Your task to perform on an android device: Open the phone app and click the voicemail tab. Image 0: 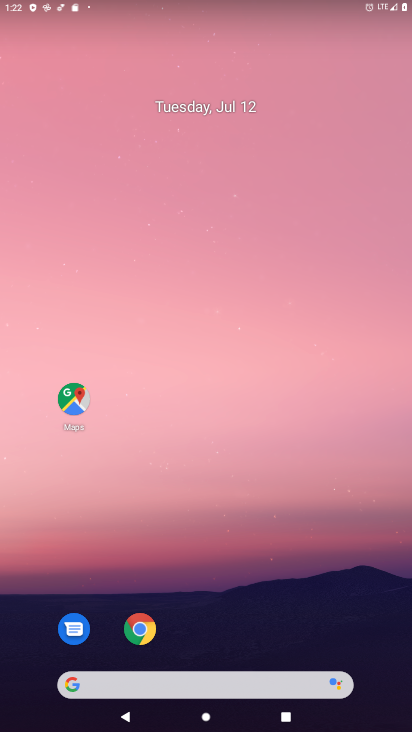
Step 0: drag from (276, 671) to (290, 0)
Your task to perform on an android device: Open the phone app and click the voicemail tab. Image 1: 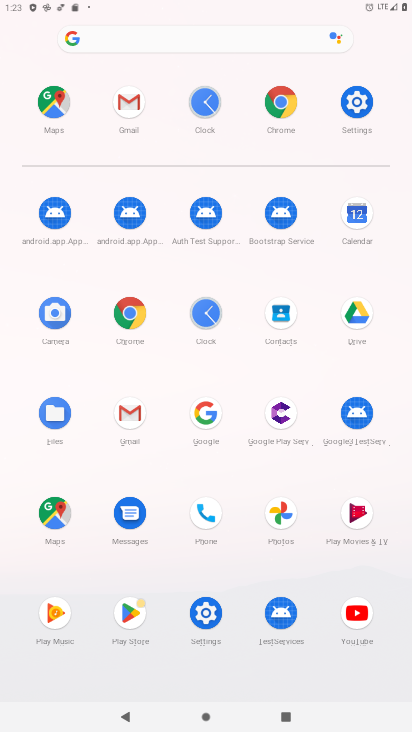
Step 1: click (191, 511)
Your task to perform on an android device: Open the phone app and click the voicemail tab. Image 2: 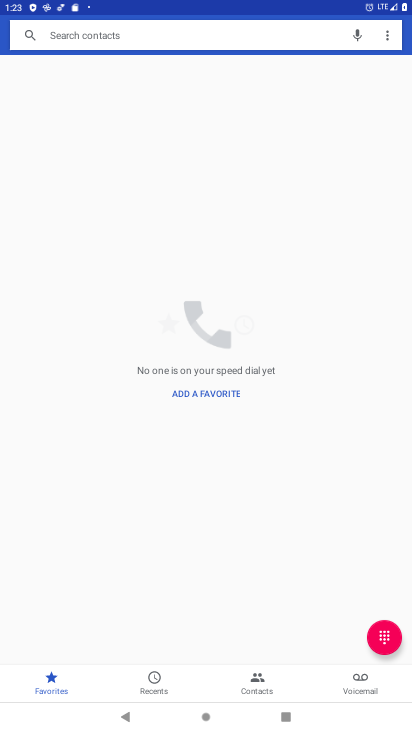
Step 2: click (362, 682)
Your task to perform on an android device: Open the phone app and click the voicemail tab. Image 3: 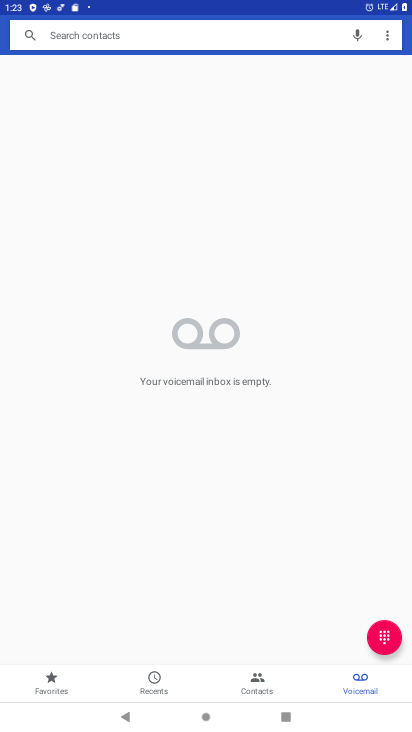
Step 3: task complete